Your task to perform on an android device: turn on improve location accuracy Image 0: 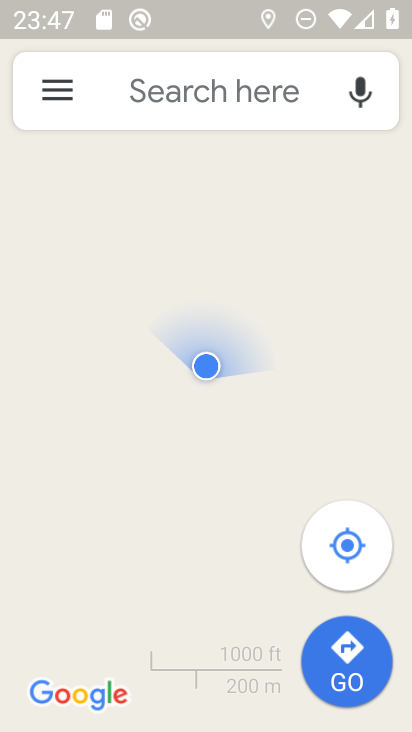
Step 0: press home button
Your task to perform on an android device: turn on improve location accuracy Image 1: 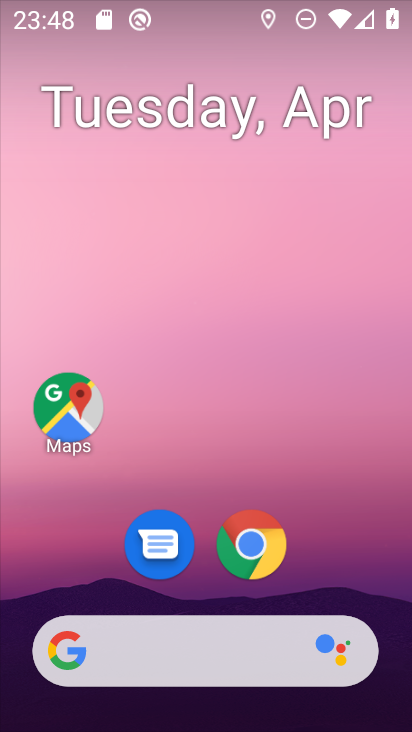
Step 1: drag from (334, 511) to (150, 64)
Your task to perform on an android device: turn on improve location accuracy Image 2: 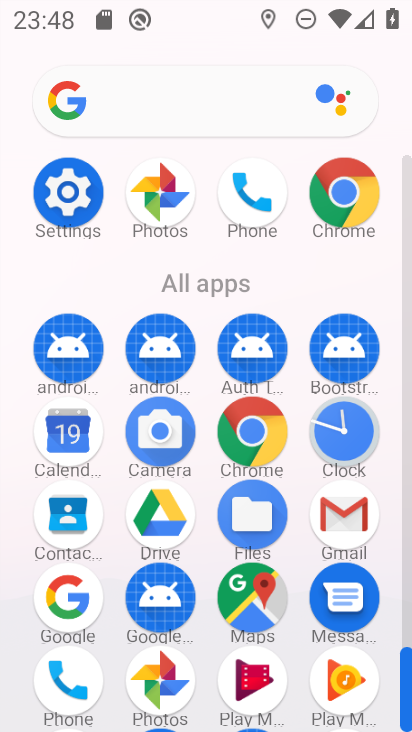
Step 2: click (78, 196)
Your task to perform on an android device: turn on improve location accuracy Image 3: 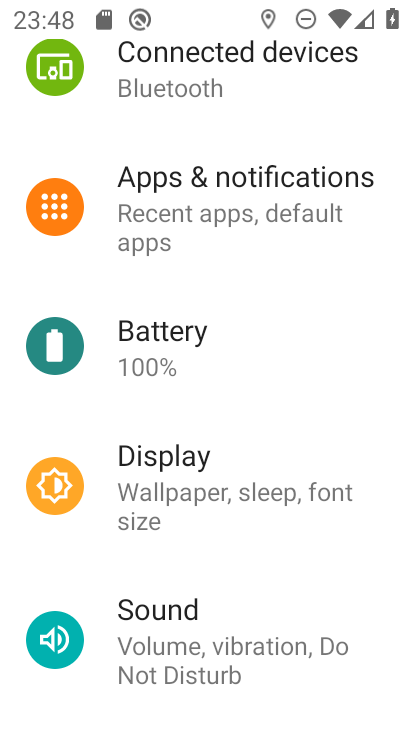
Step 3: drag from (346, 561) to (342, 305)
Your task to perform on an android device: turn on improve location accuracy Image 4: 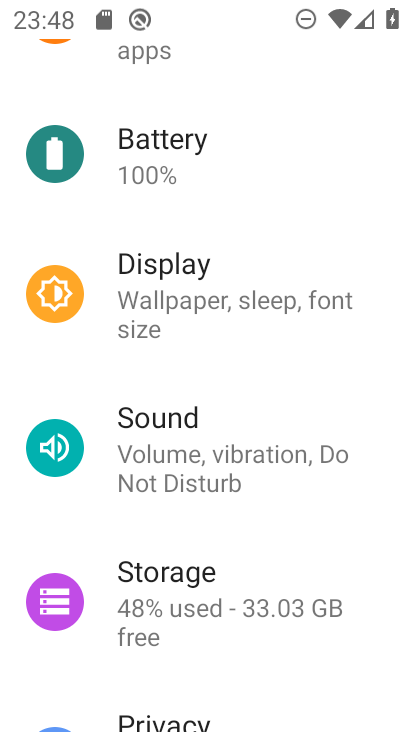
Step 4: drag from (374, 627) to (329, 363)
Your task to perform on an android device: turn on improve location accuracy Image 5: 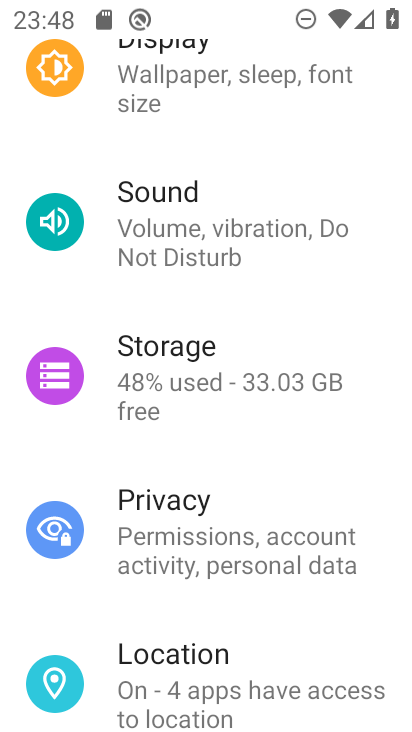
Step 5: drag from (371, 631) to (357, 379)
Your task to perform on an android device: turn on improve location accuracy Image 6: 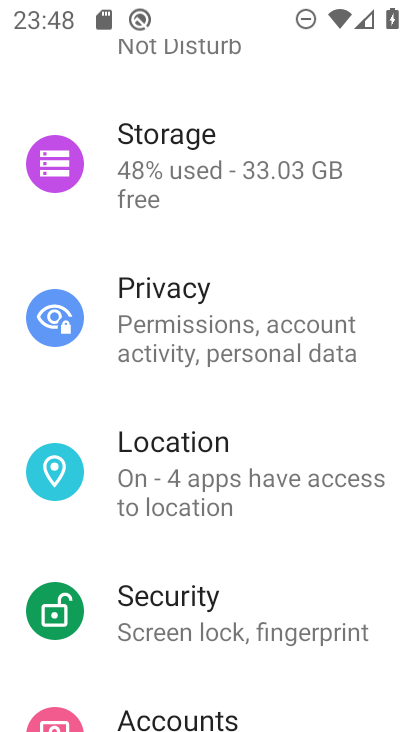
Step 6: click (228, 467)
Your task to perform on an android device: turn on improve location accuracy Image 7: 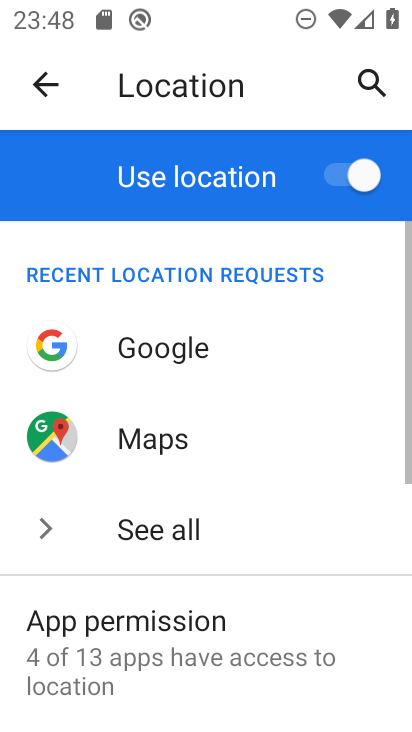
Step 7: drag from (367, 613) to (341, 390)
Your task to perform on an android device: turn on improve location accuracy Image 8: 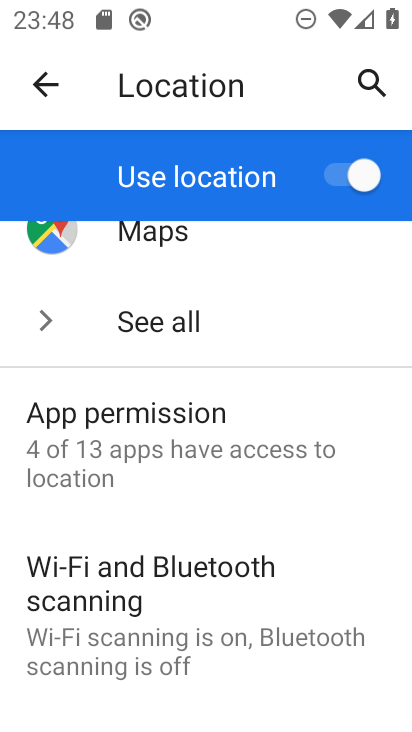
Step 8: drag from (357, 580) to (342, 360)
Your task to perform on an android device: turn on improve location accuracy Image 9: 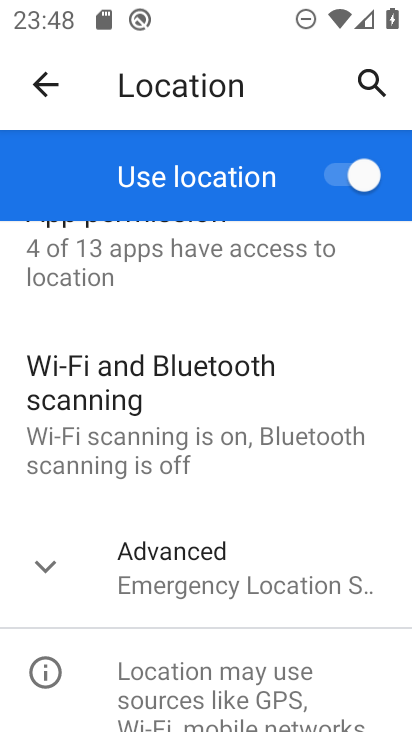
Step 9: click (266, 587)
Your task to perform on an android device: turn on improve location accuracy Image 10: 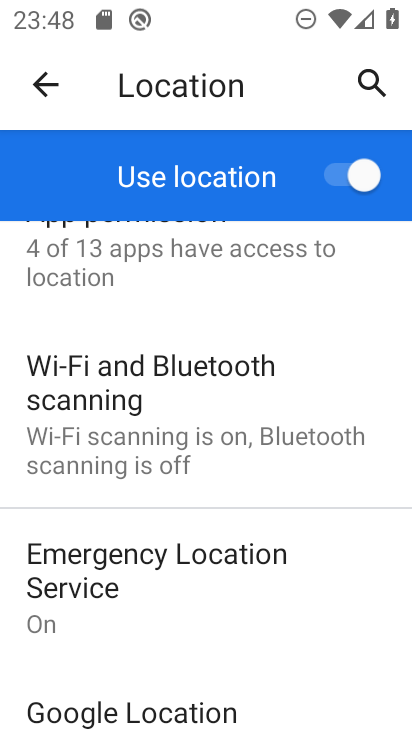
Step 10: drag from (303, 631) to (293, 465)
Your task to perform on an android device: turn on improve location accuracy Image 11: 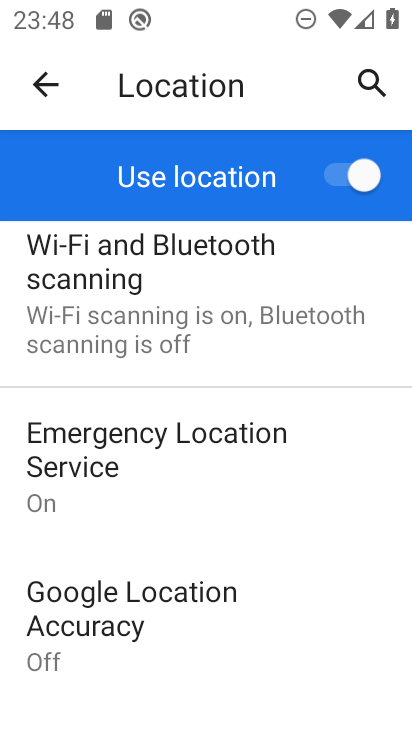
Step 11: click (159, 596)
Your task to perform on an android device: turn on improve location accuracy Image 12: 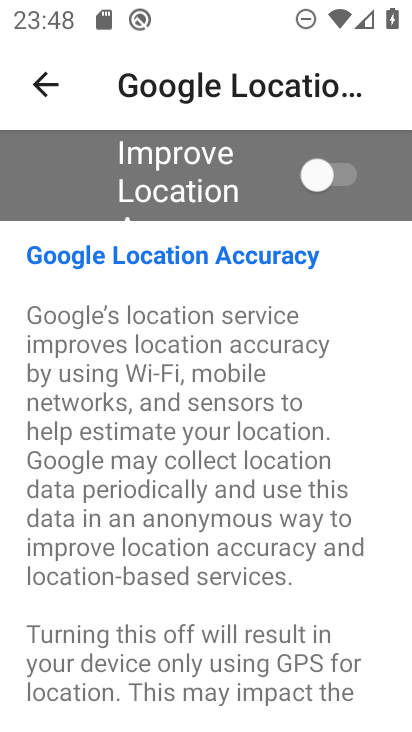
Step 12: click (326, 178)
Your task to perform on an android device: turn on improve location accuracy Image 13: 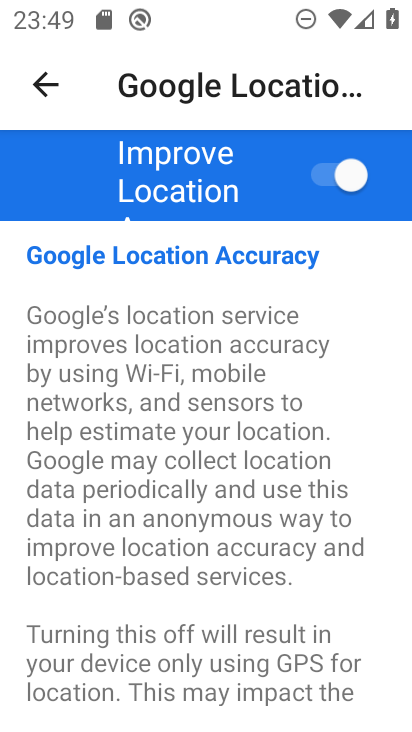
Step 13: task complete